Your task to perform on an android device: Go to notification settings Image 0: 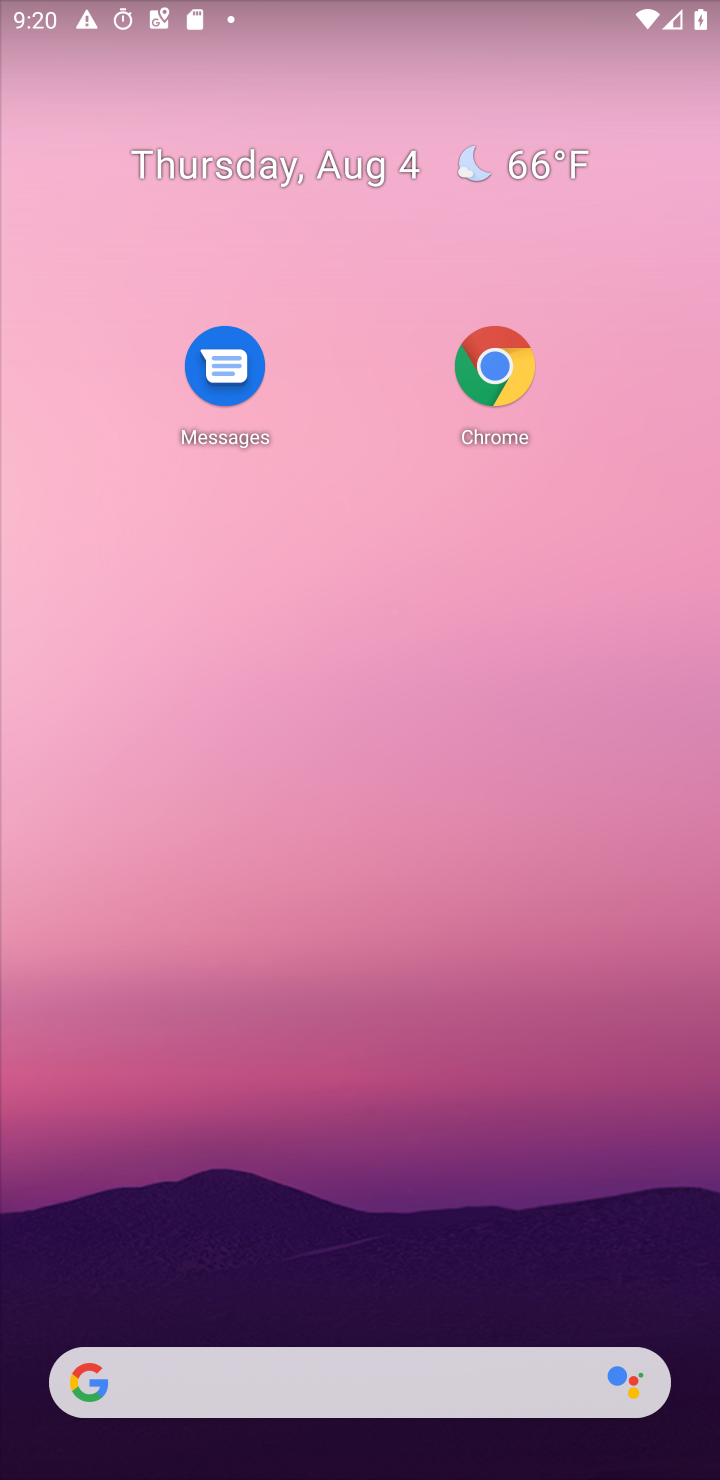
Step 0: press home button
Your task to perform on an android device: Go to notification settings Image 1: 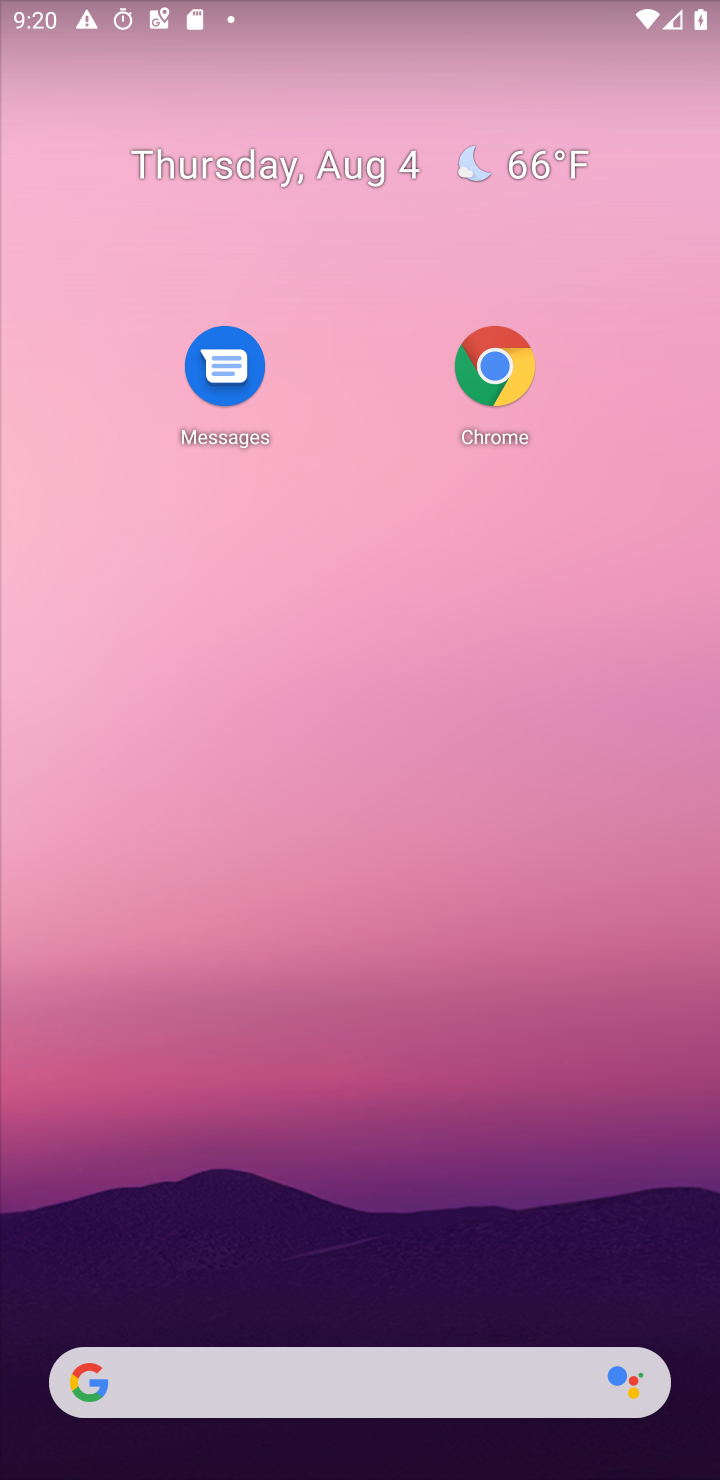
Step 1: drag from (390, 1366) to (575, 413)
Your task to perform on an android device: Go to notification settings Image 2: 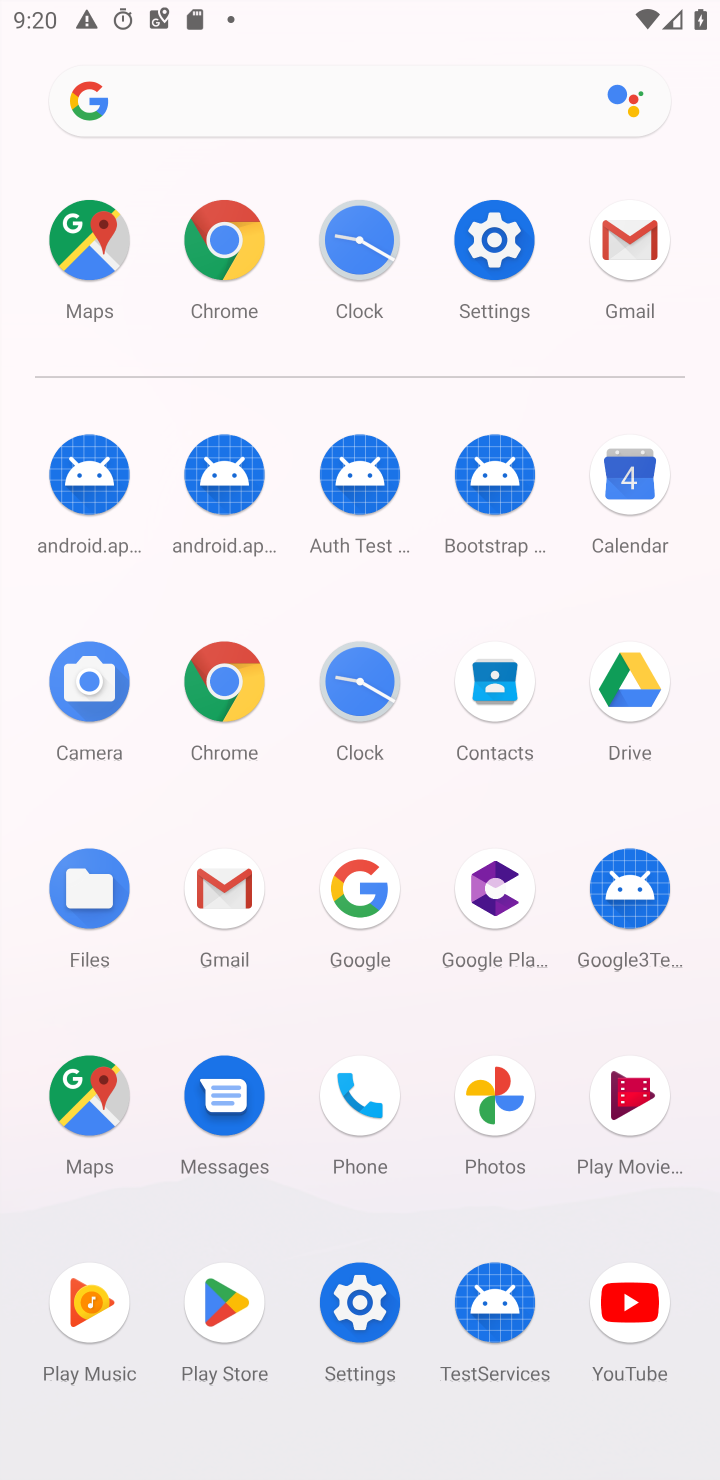
Step 2: click (485, 228)
Your task to perform on an android device: Go to notification settings Image 3: 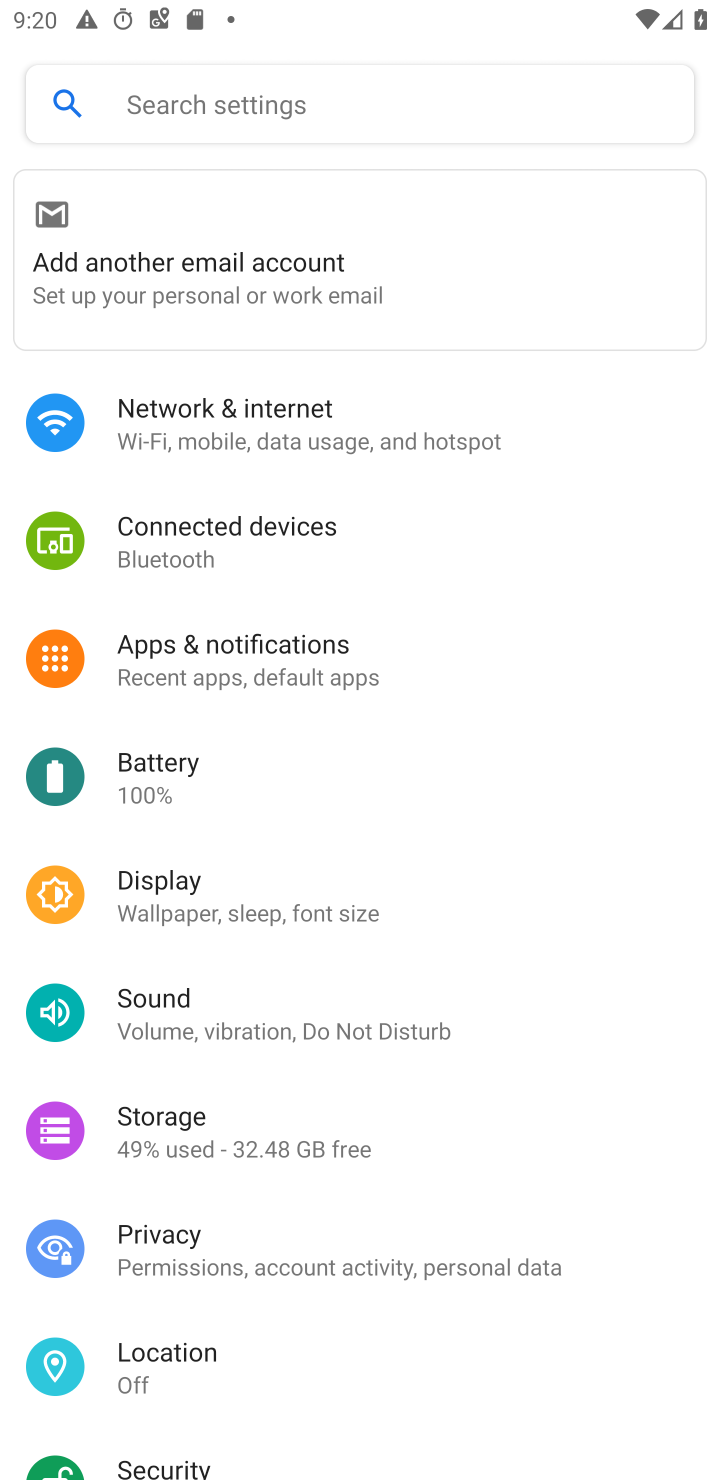
Step 3: click (264, 97)
Your task to perform on an android device: Go to notification settings Image 4: 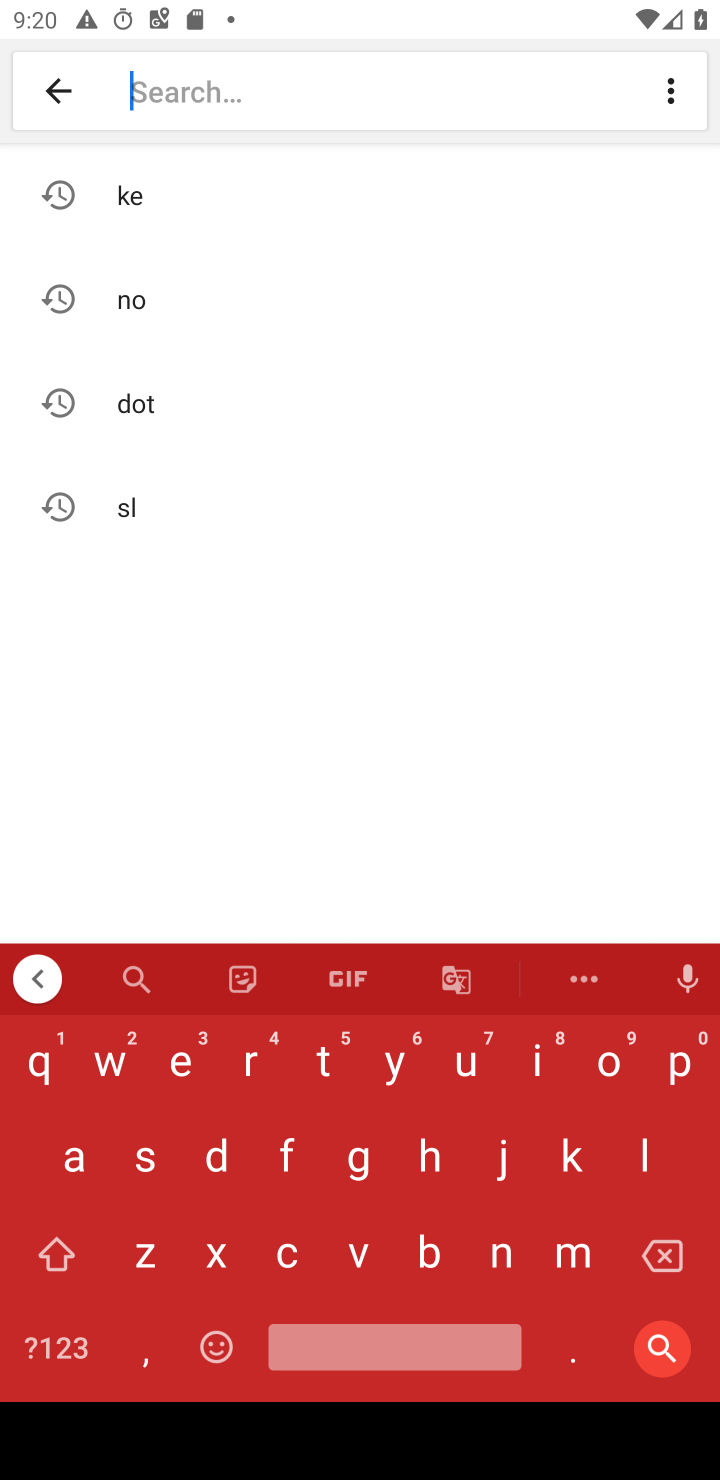
Step 4: click (200, 299)
Your task to perform on an android device: Go to notification settings Image 5: 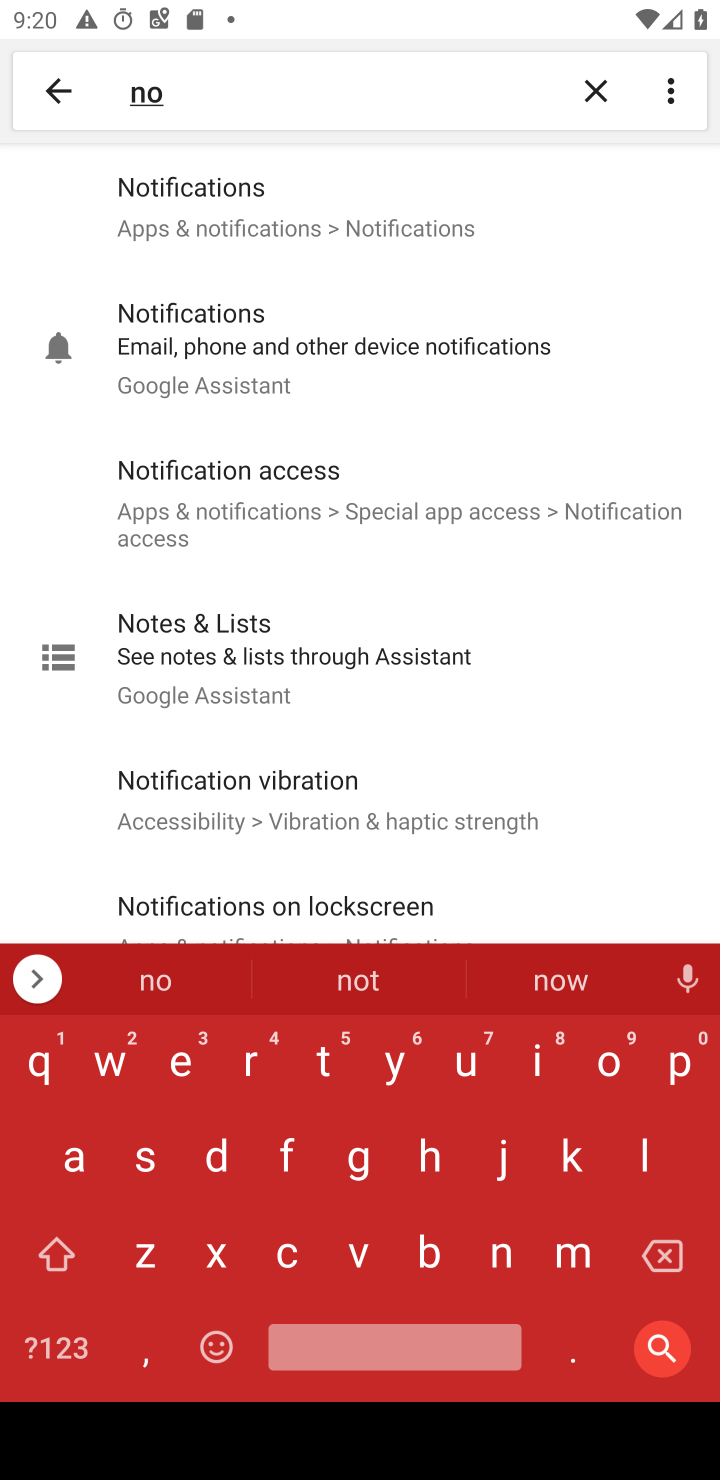
Step 5: click (296, 190)
Your task to perform on an android device: Go to notification settings Image 6: 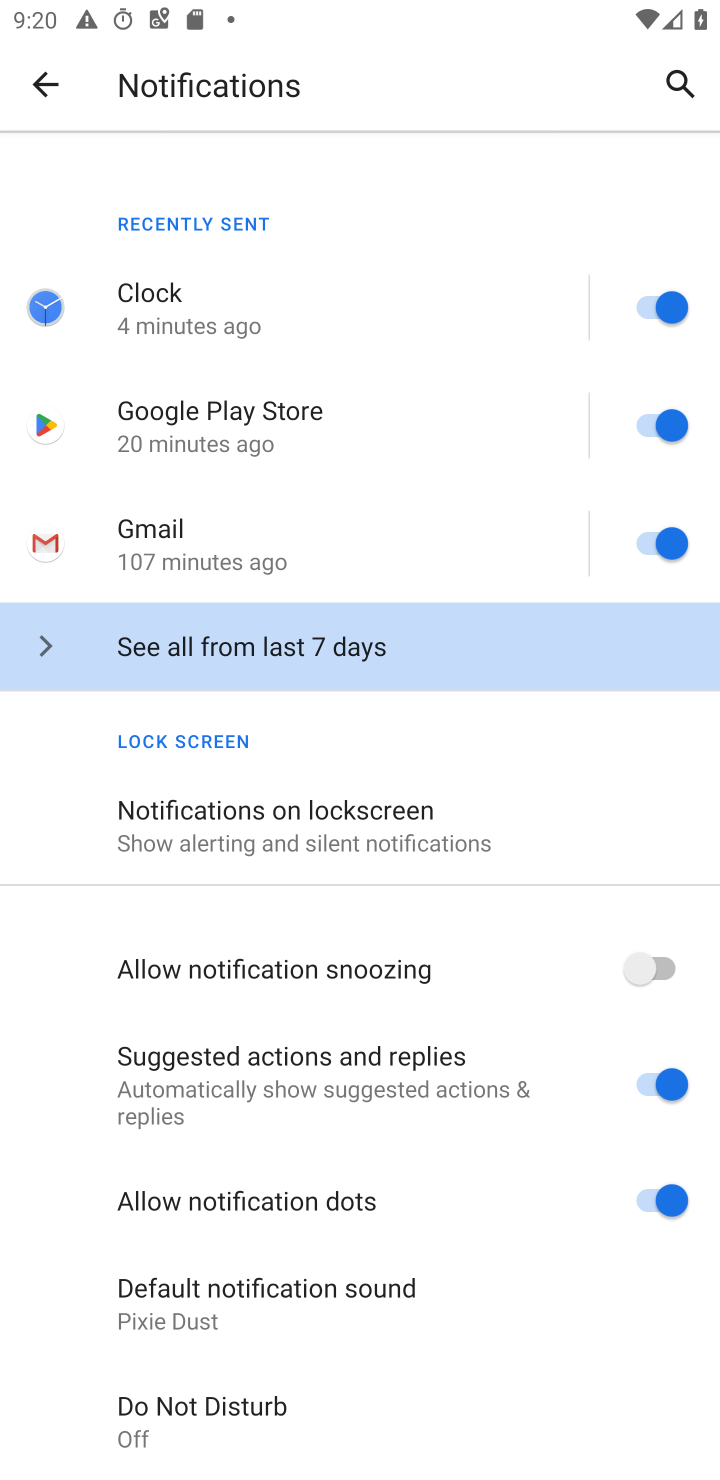
Step 6: click (228, 835)
Your task to perform on an android device: Go to notification settings Image 7: 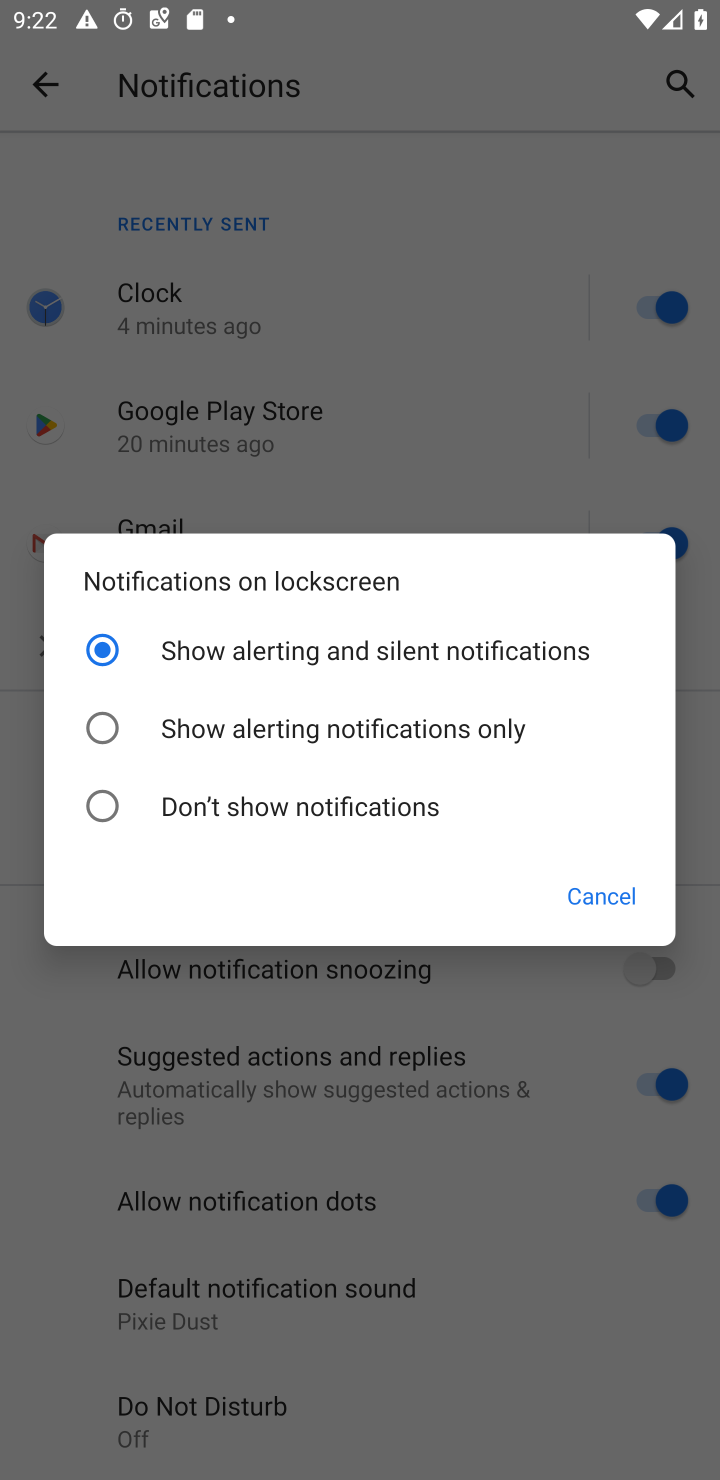
Step 7: task complete